Your task to perform on an android device: View the shopping cart on amazon. Add lenovo thinkpad to the cart on amazon, then select checkout. Image 0: 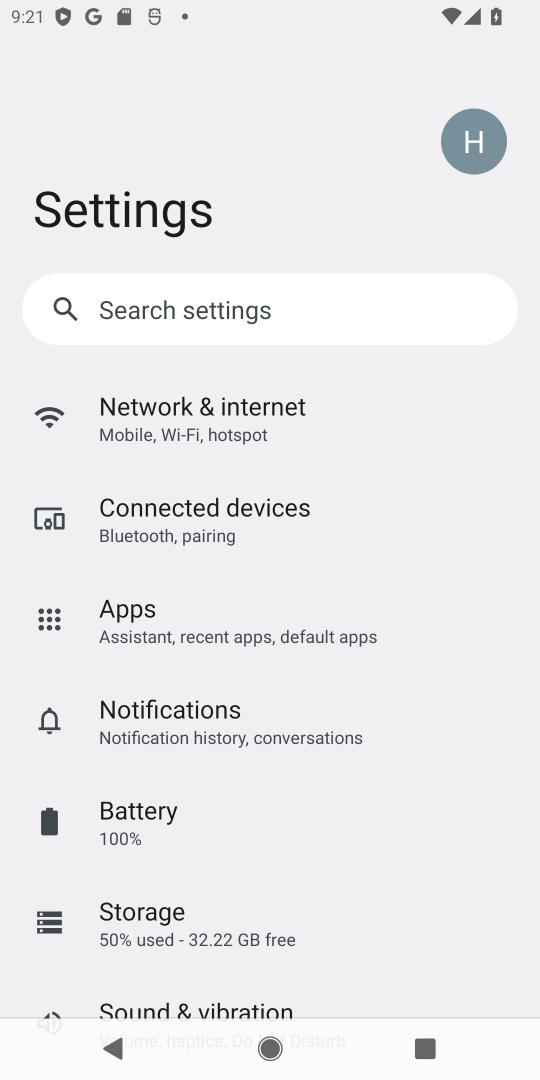
Step 0: press home button
Your task to perform on an android device: View the shopping cart on amazon. Add lenovo thinkpad to the cart on amazon, then select checkout. Image 1: 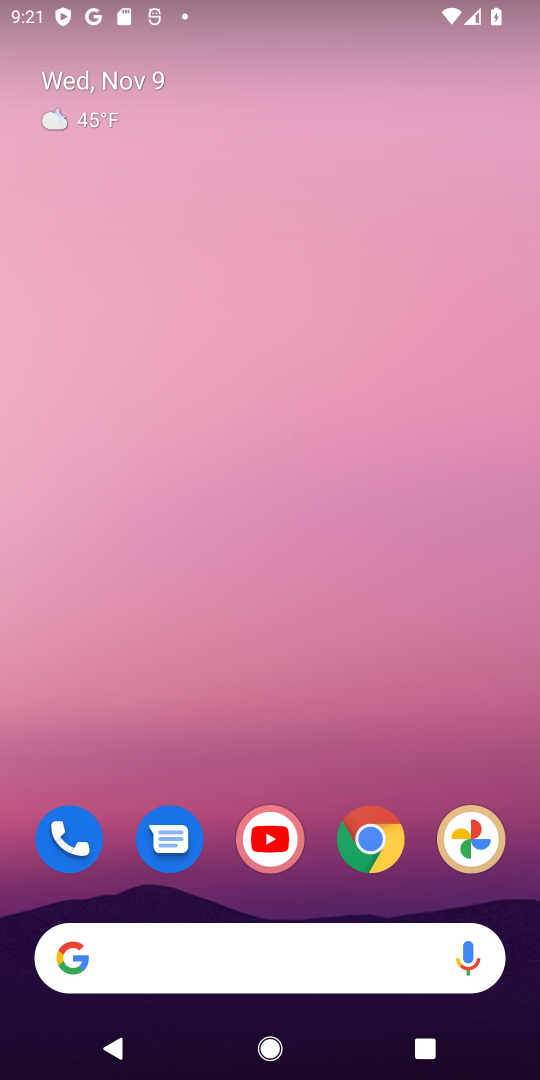
Step 1: drag from (224, 812) to (229, 135)
Your task to perform on an android device: View the shopping cart on amazon. Add lenovo thinkpad to the cart on amazon, then select checkout. Image 2: 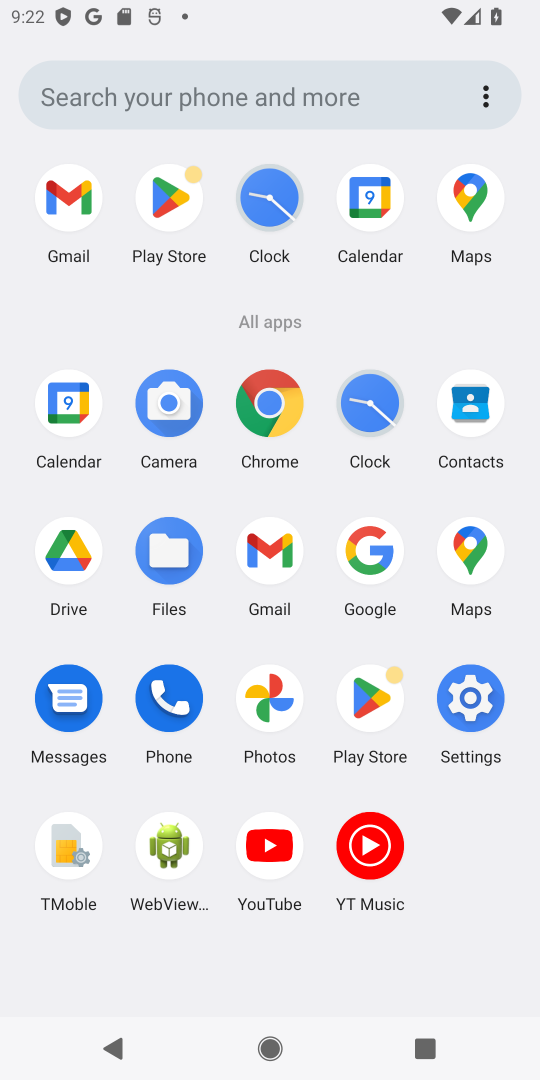
Step 2: click (272, 411)
Your task to perform on an android device: View the shopping cart on amazon. Add lenovo thinkpad to the cart on amazon, then select checkout. Image 3: 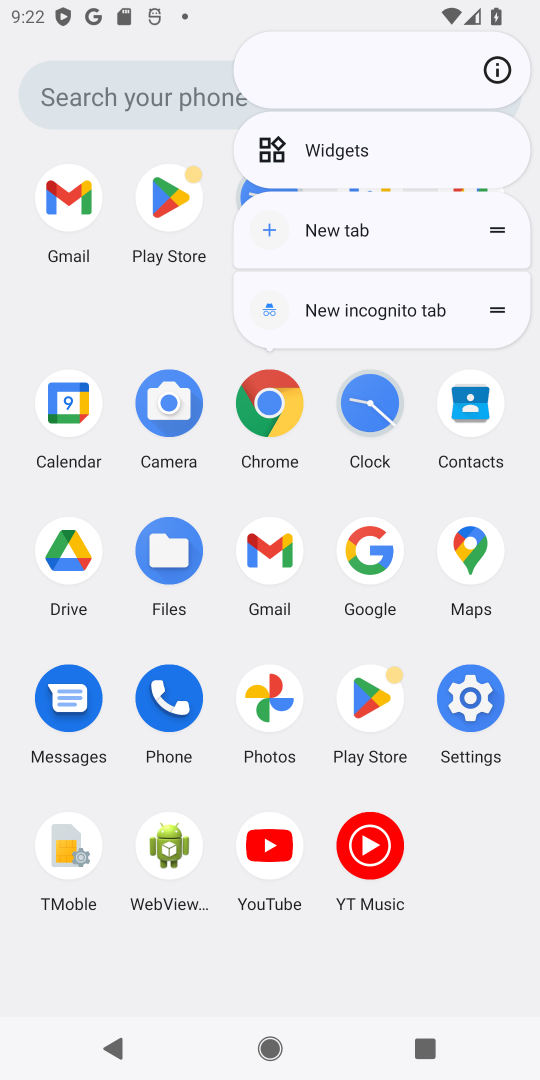
Step 3: click (272, 391)
Your task to perform on an android device: View the shopping cart on amazon. Add lenovo thinkpad to the cart on amazon, then select checkout. Image 4: 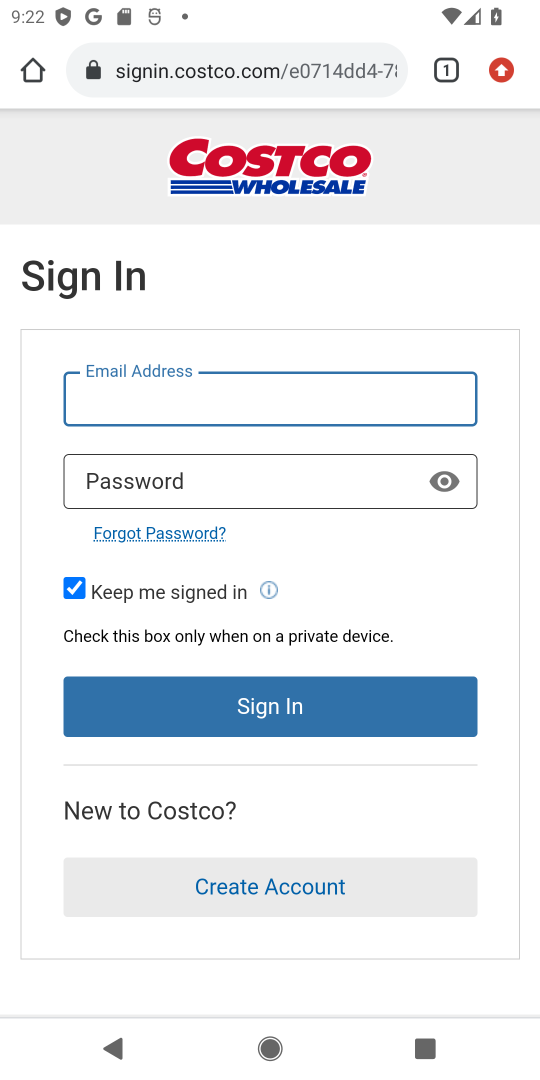
Step 4: click (198, 76)
Your task to perform on an android device: View the shopping cart on amazon. Add lenovo thinkpad to the cart on amazon, then select checkout. Image 5: 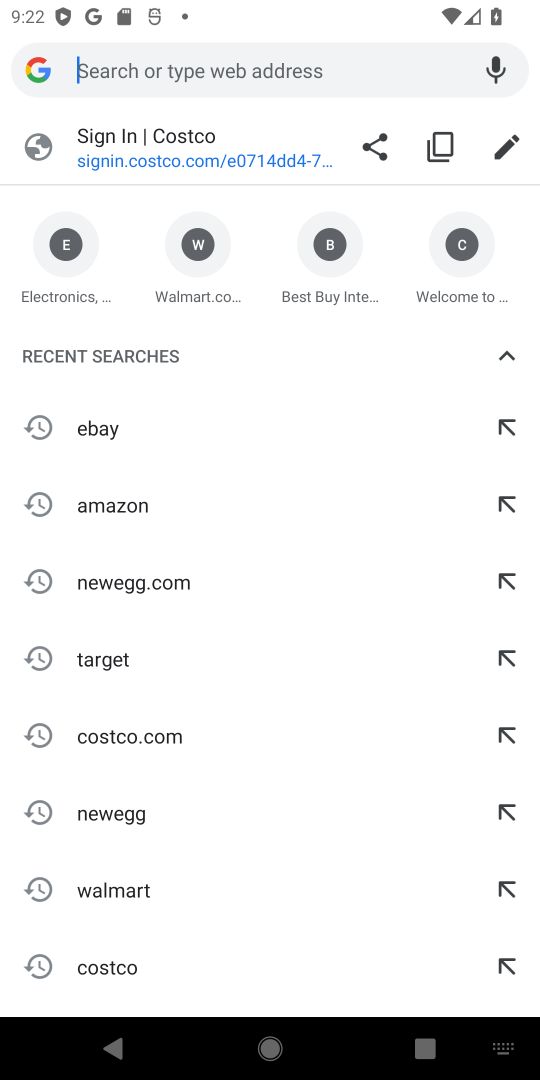
Step 5: type "amazon"
Your task to perform on an android device: View the shopping cart on amazon. Add lenovo thinkpad to the cart on amazon, then select checkout. Image 6: 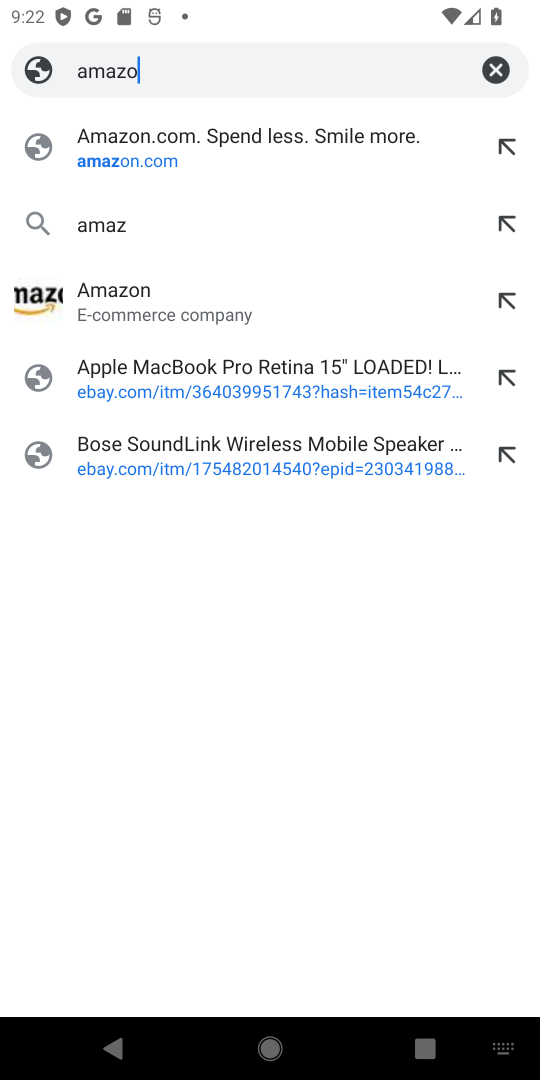
Step 6: press enter
Your task to perform on an android device: View the shopping cart on amazon. Add lenovo thinkpad to the cart on amazon, then select checkout. Image 7: 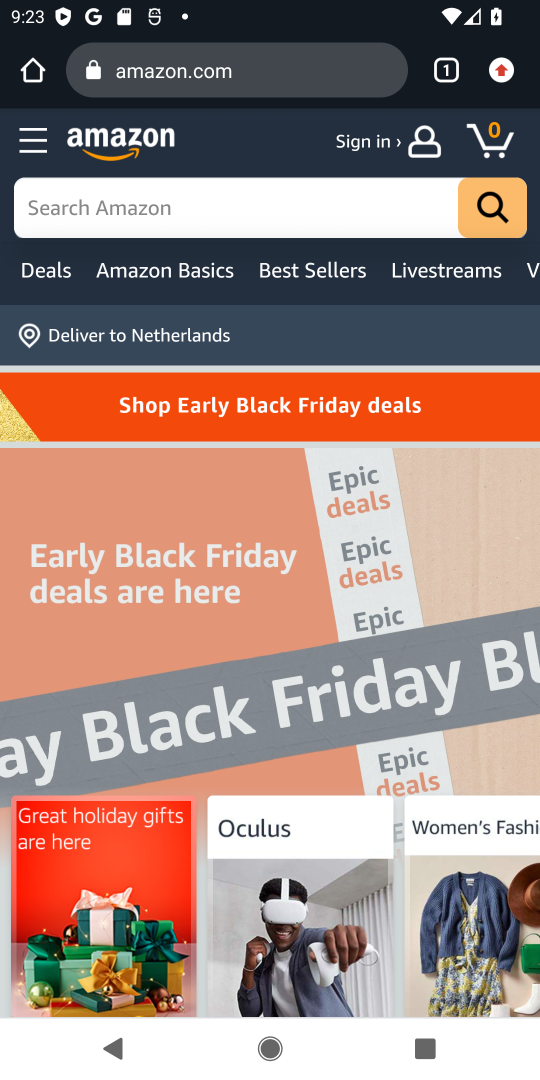
Step 7: click (209, 203)
Your task to perform on an android device: View the shopping cart on amazon. Add lenovo thinkpad to the cart on amazon, then select checkout. Image 8: 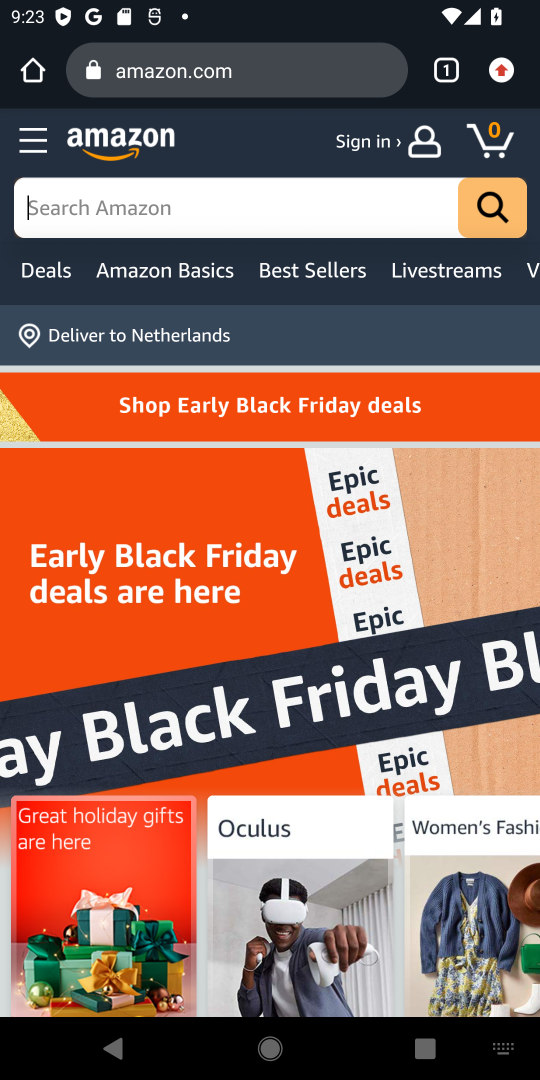
Step 8: type "lenovo thinkpad"
Your task to perform on an android device: View the shopping cart on amazon. Add lenovo thinkpad to the cart on amazon, then select checkout. Image 9: 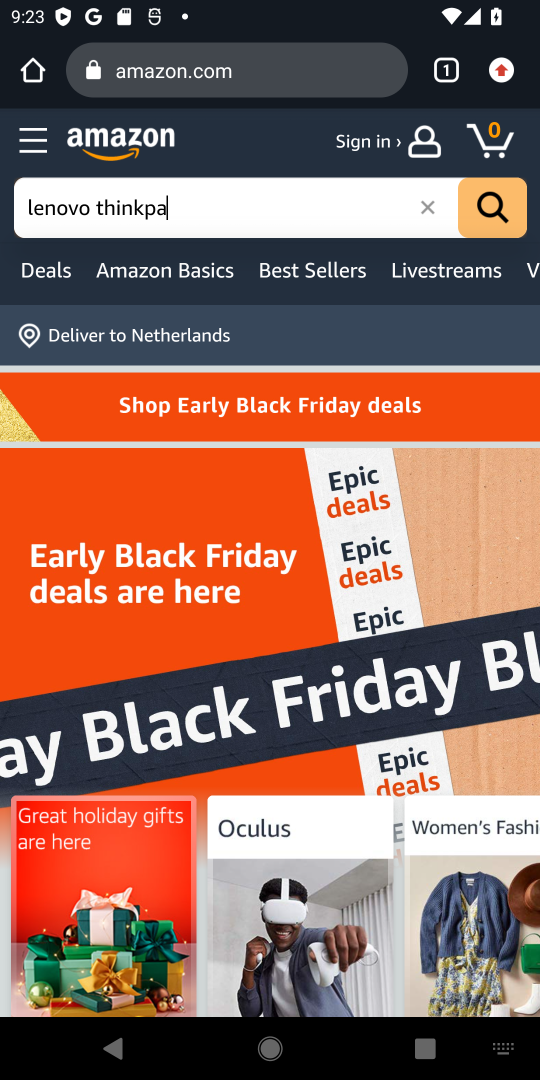
Step 9: press enter
Your task to perform on an android device: View the shopping cart on amazon. Add lenovo thinkpad to the cart on amazon, then select checkout. Image 10: 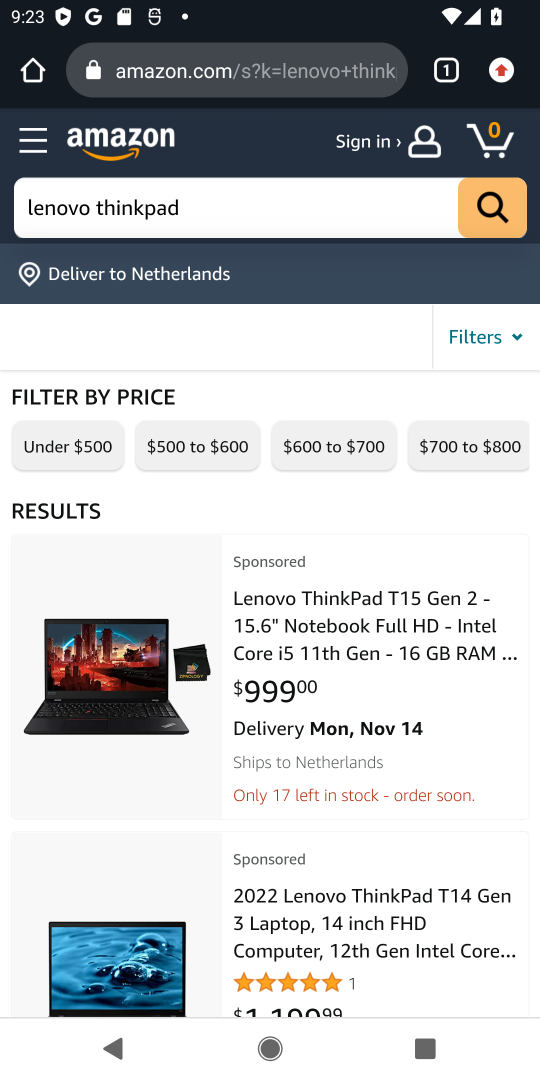
Step 10: click (376, 589)
Your task to perform on an android device: View the shopping cart on amazon. Add lenovo thinkpad to the cart on amazon, then select checkout. Image 11: 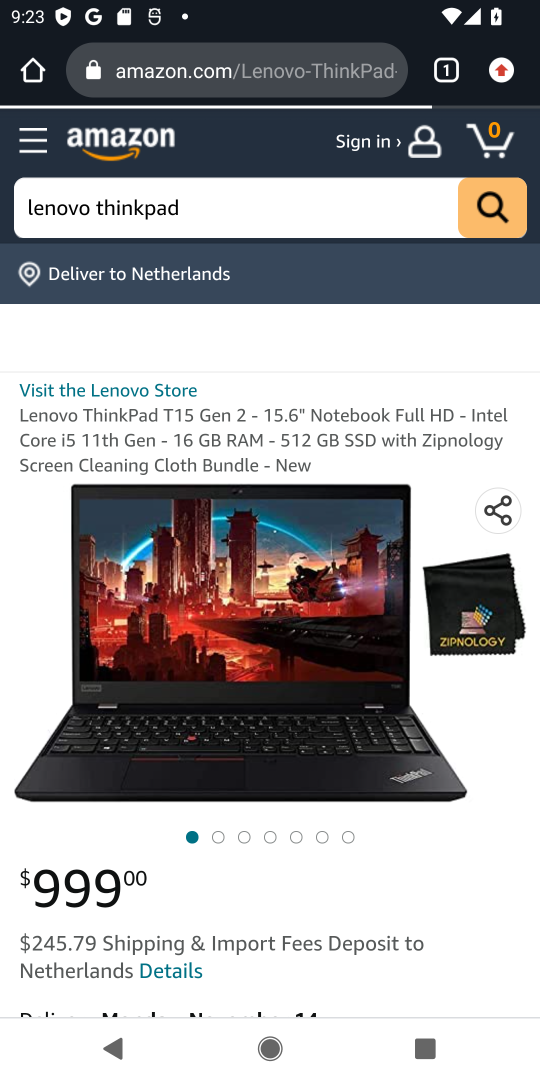
Step 11: drag from (305, 711) to (334, 339)
Your task to perform on an android device: View the shopping cart on amazon. Add lenovo thinkpad to the cart on amazon, then select checkout. Image 12: 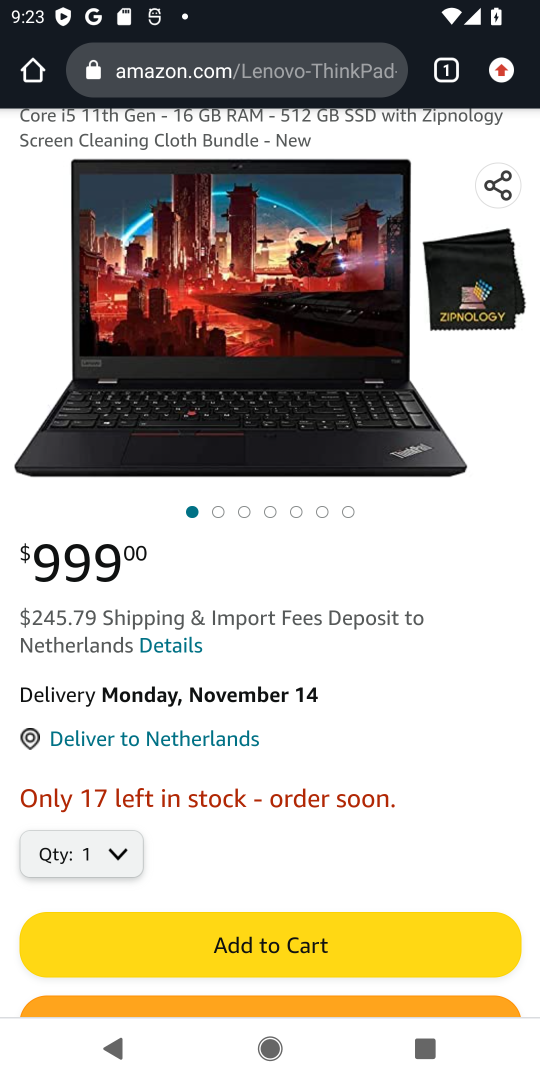
Step 12: click (273, 931)
Your task to perform on an android device: View the shopping cart on amazon. Add lenovo thinkpad to the cart on amazon, then select checkout. Image 13: 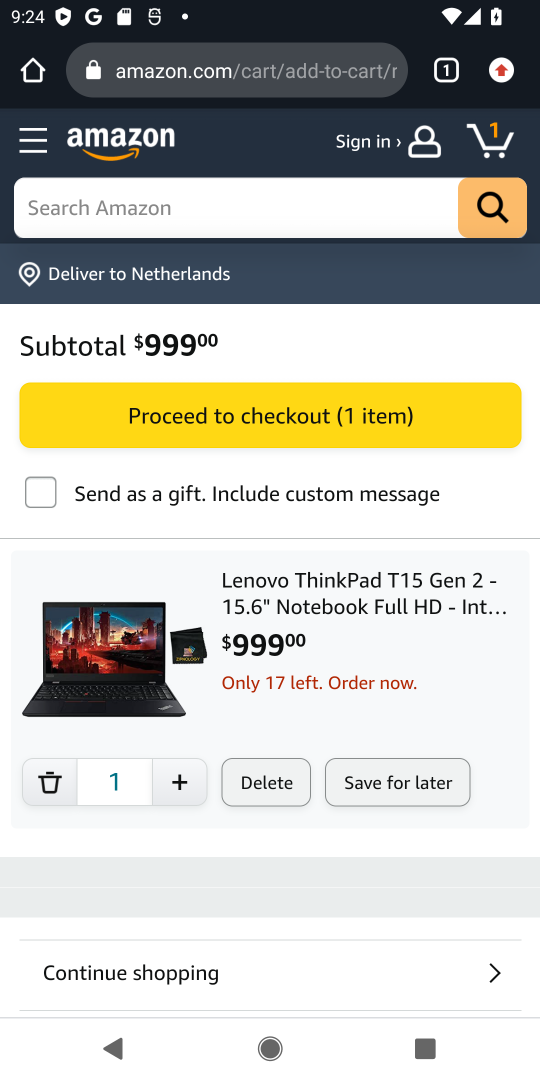
Step 13: click (213, 405)
Your task to perform on an android device: View the shopping cart on amazon. Add lenovo thinkpad to the cart on amazon, then select checkout. Image 14: 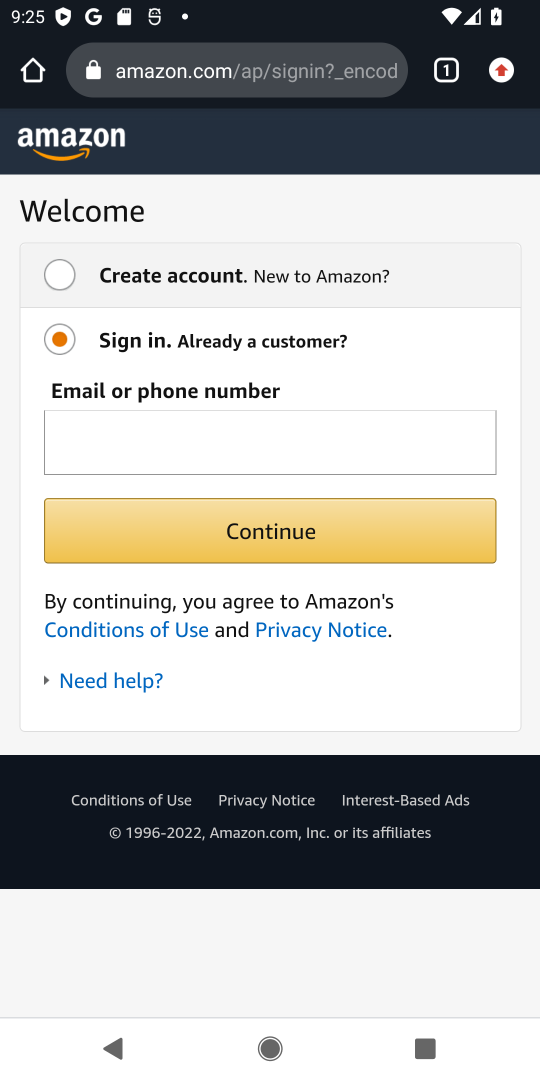
Step 14: task complete